Your task to perform on an android device: delete the emails in spam in the gmail app Image 0: 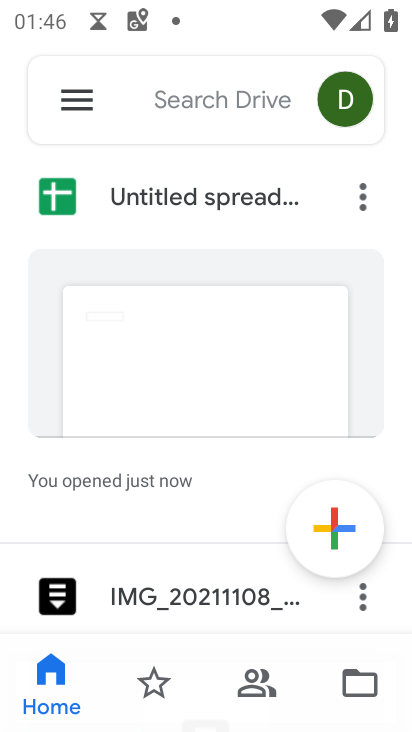
Step 0: press home button
Your task to perform on an android device: delete the emails in spam in the gmail app Image 1: 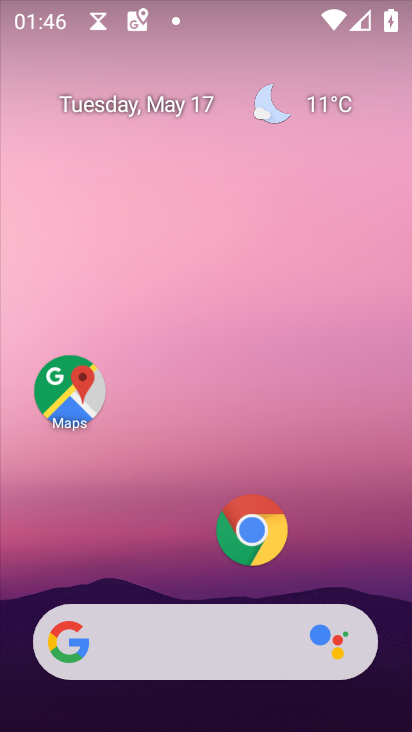
Step 1: drag from (370, 535) to (353, 184)
Your task to perform on an android device: delete the emails in spam in the gmail app Image 2: 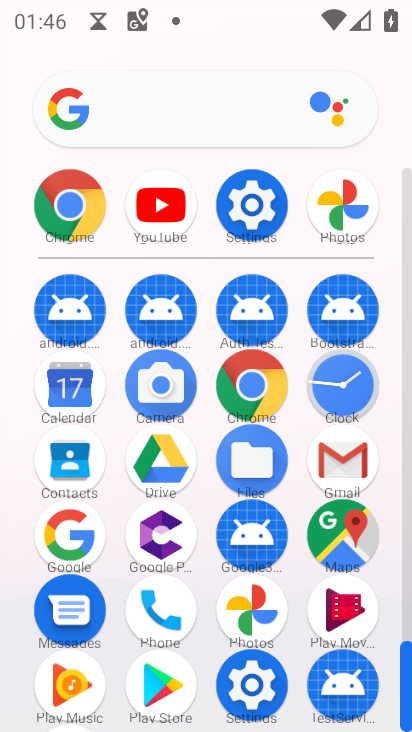
Step 2: click (345, 455)
Your task to perform on an android device: delete the emails in spam in the gmail app Image 3: 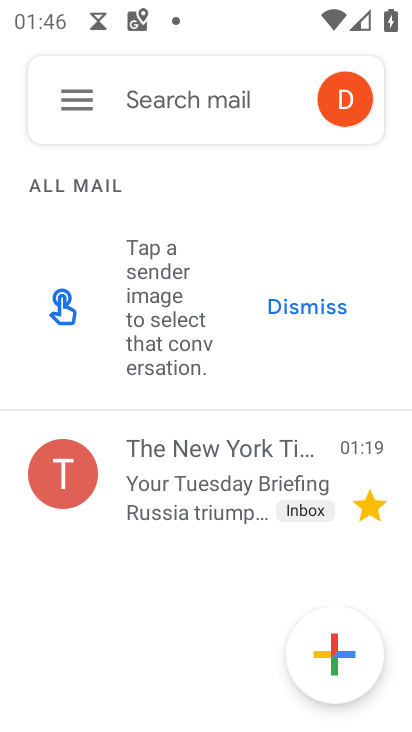
Step 3: click (69, 112)
Your task to perform on an android device: delete the emails in spam in the gmail app Image 4: 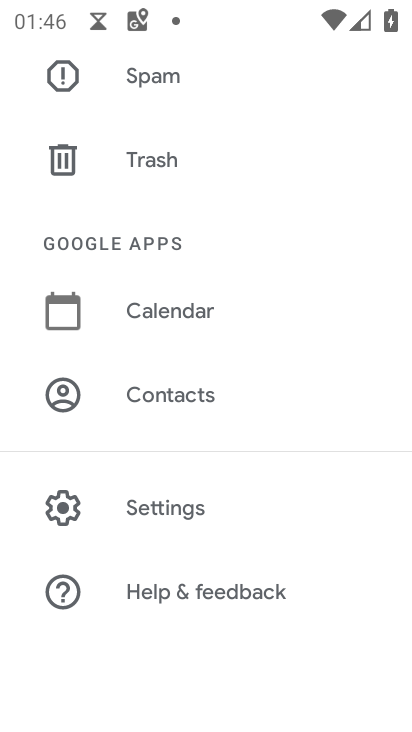
Step 4: click (150, 77)
Your task to perform on an android device: delete the emails in spam in the gmail app Image 5: 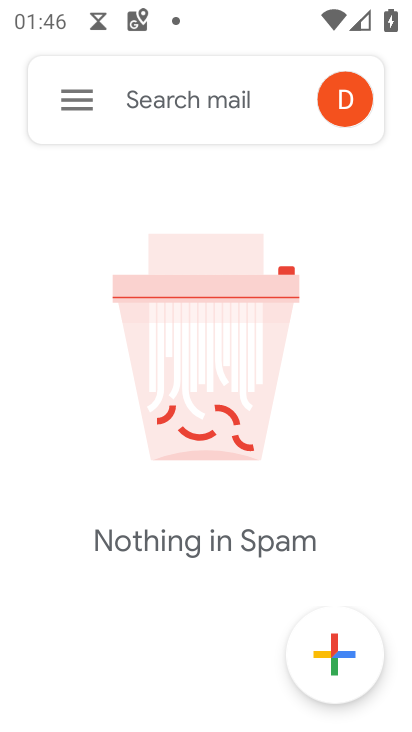
Step 5: task complete